Your task to perform on an android device: toggle improve location accuracy Image 0: 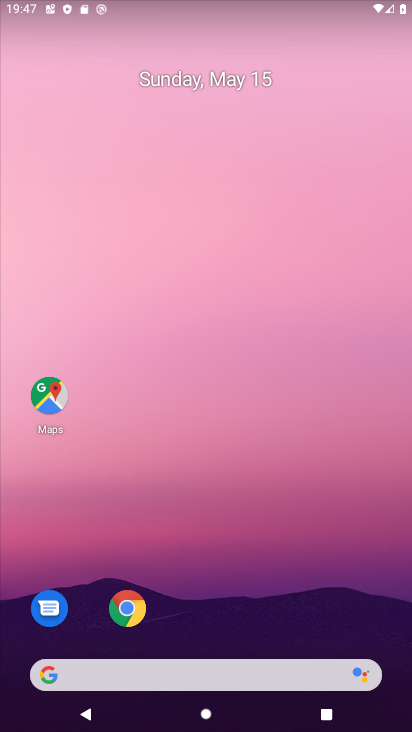
Step 0: drag from (222, 589) to (297, 198)
Your task to perform on an android device: toggle improve location accuracy Image 1: 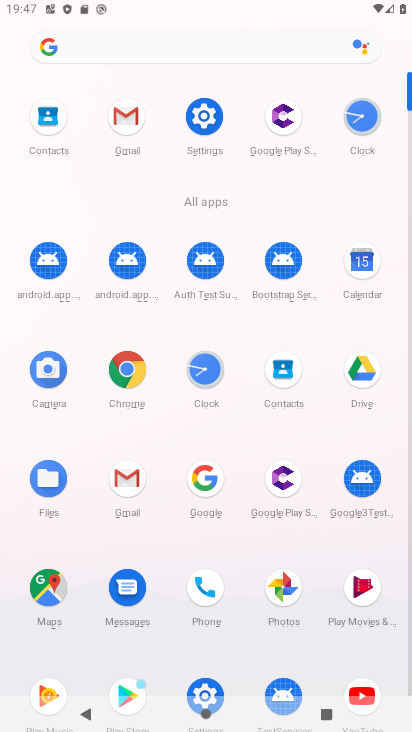
Step 1: click (218, 108)
Your task to perform on an android device: toggle improve location accuracy Image 2: 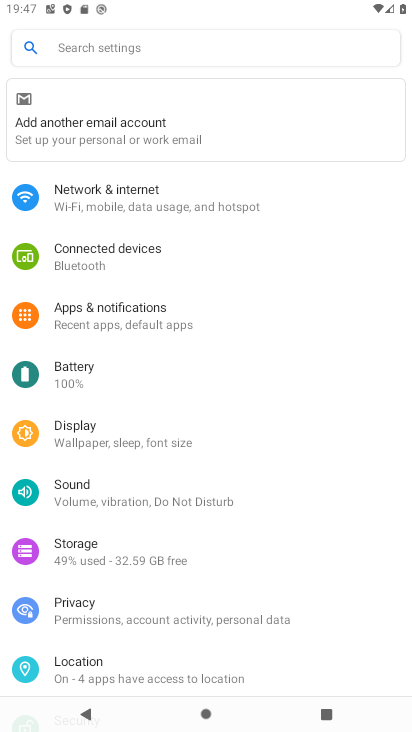
Step 2: click (122, 681)
Your task to perform on an android device: toggle improve location accuracy Image 3: 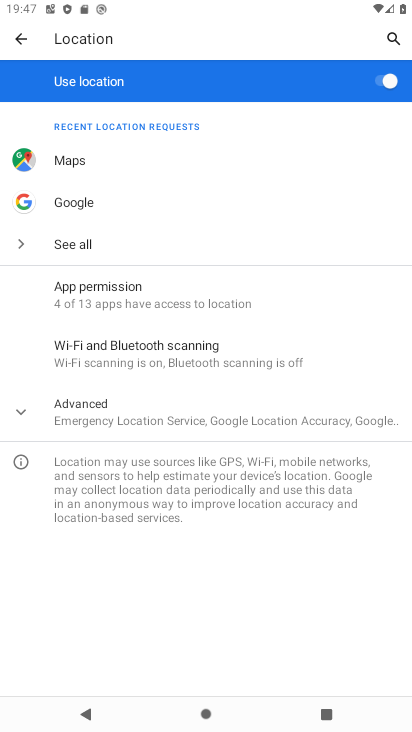
Step 3: click (149, 407)
Your task to perform on an android device: toggle improve location accuracy Image 4: 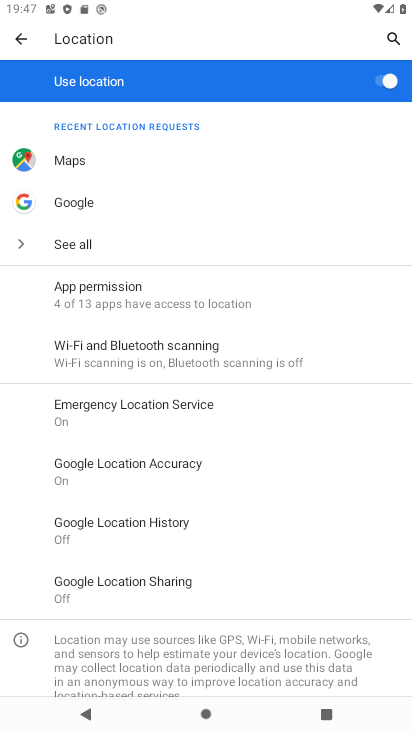
Step 4: click (135, 461)
Your task to perform on an android device: toggle improve location accuracy Image 5: 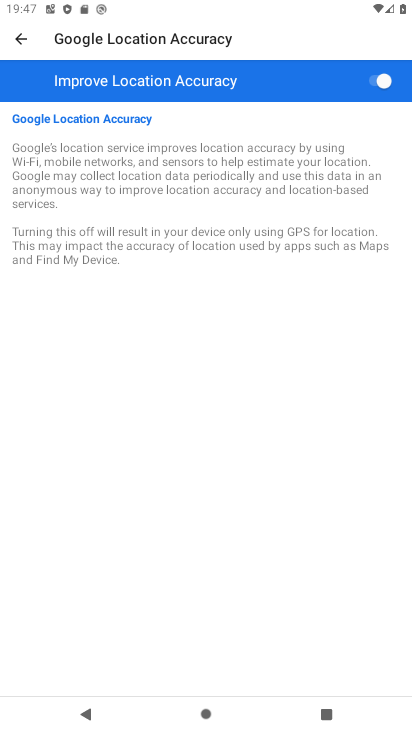
Step 5: click (380, 82)
Your task to perform on an android device: toggle improve location accuracy Image 6: 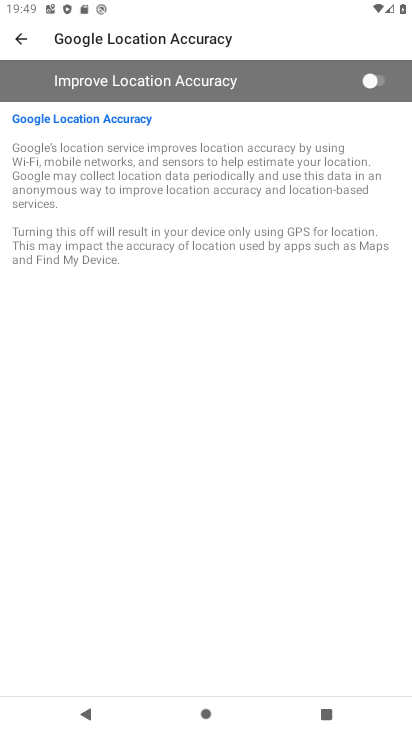
Step 6: task complete